Your task to perform on an android device: change text size in settings app Image 0: 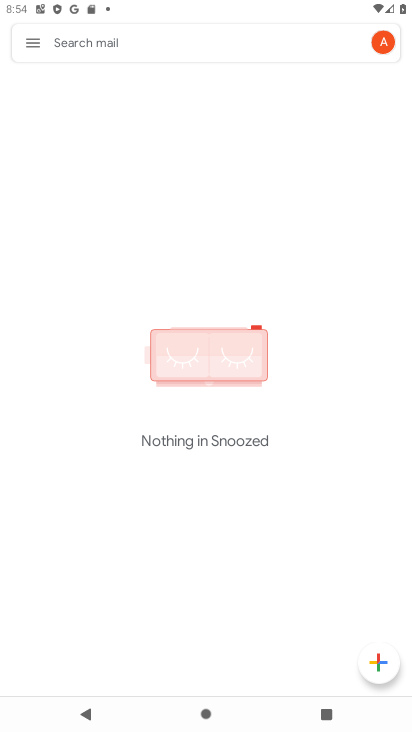
Step 0: press home button
Your task to perform on an android device: change text size in settings app Image 1: 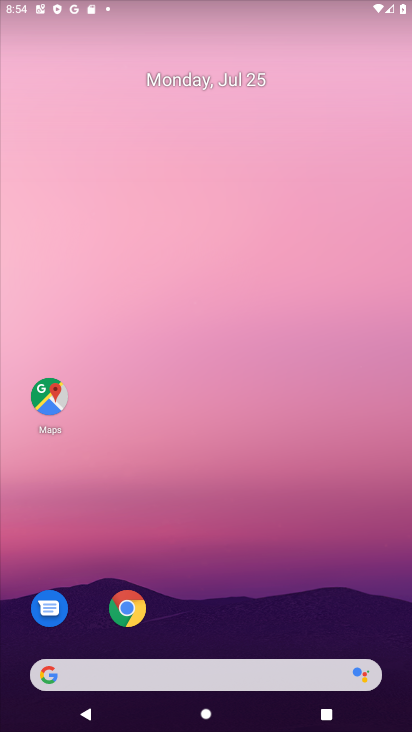
Step 1: drag from (81, 655) to (151, 237)
Your task to perform on an android device: change text size in settings app Image 2: 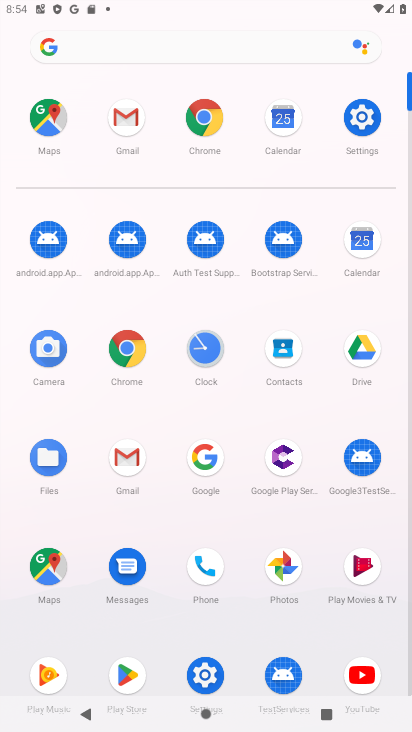
Step 2: click (371, 112)
Your task to perform on an android device: change text size in settings app Image 3: 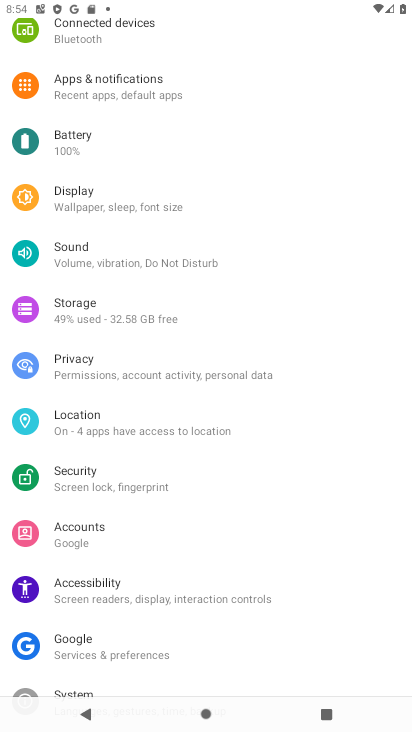
Step 3: click (127, 583)
Your task to perform on an android device: change text size in settings app Image 4: 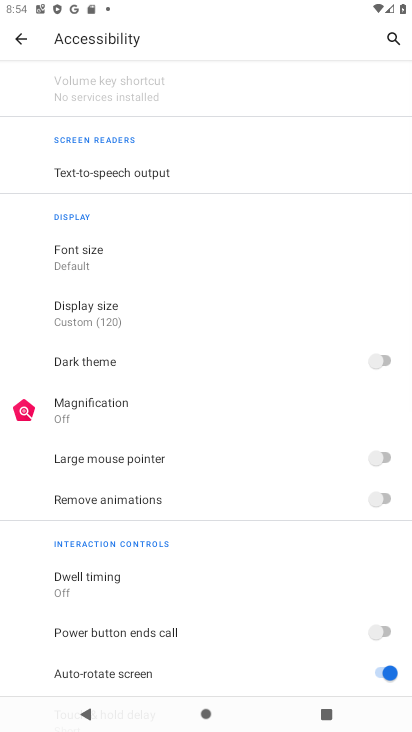
Step 4: click (70, 249)
Your task to perform on an android device: change text size in settings app Image 5: 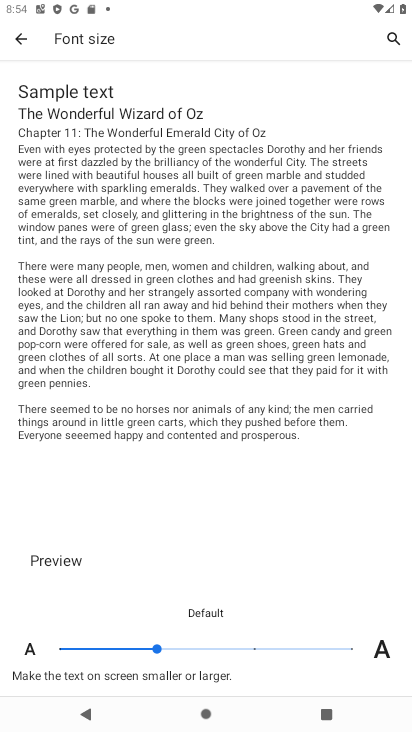
Step 5: click (252, 650)
Your task to perform on an android device: change text size in settings app Image 6: 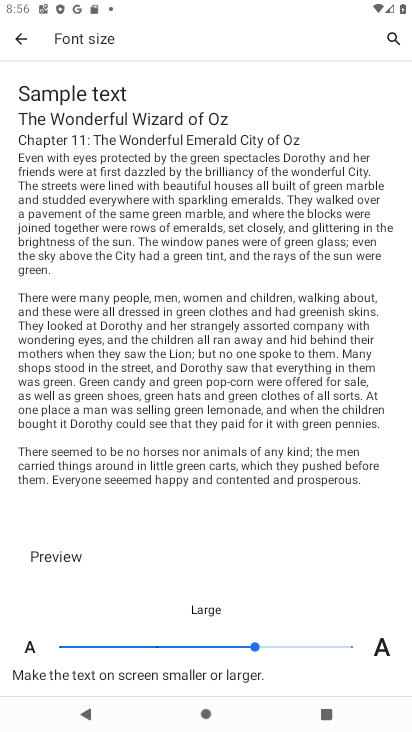
Step 6: task complete